Your task to perform on an android device: change text size in settings app Image 0: 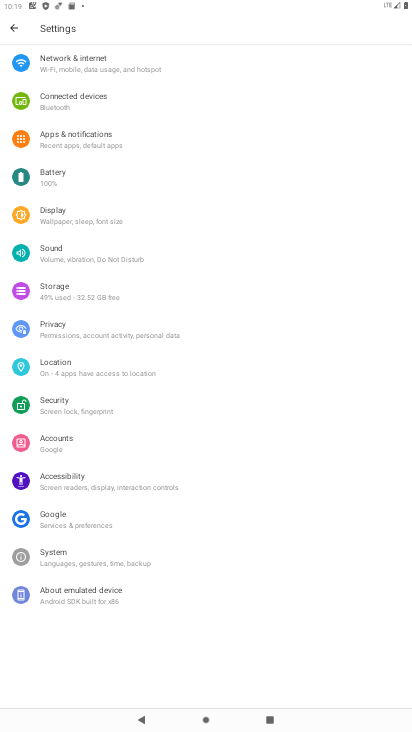
Step 0: click (66, 224)
Your task to perform on an android device: change text size in settings app Image 1: 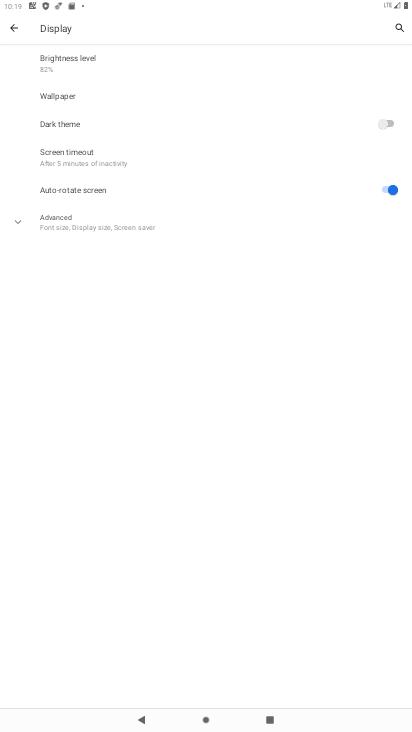
Step 1: click (86, 220)
Your task to perform on an android device: change text size in settings app Image 2: 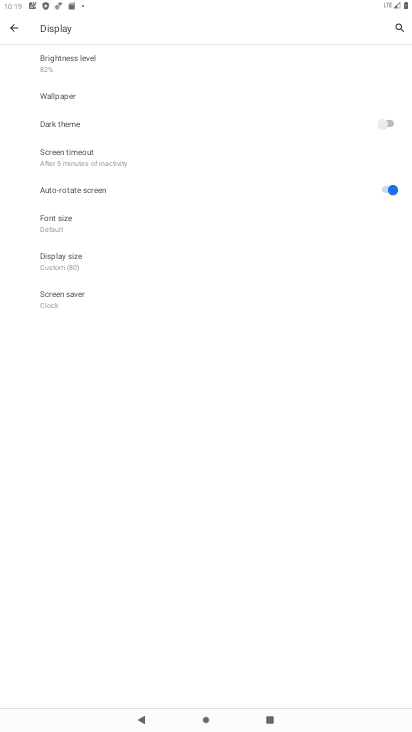
Step 2: click (85, 222)
Your task to perform on an android device: change text size in settings app Image 3: 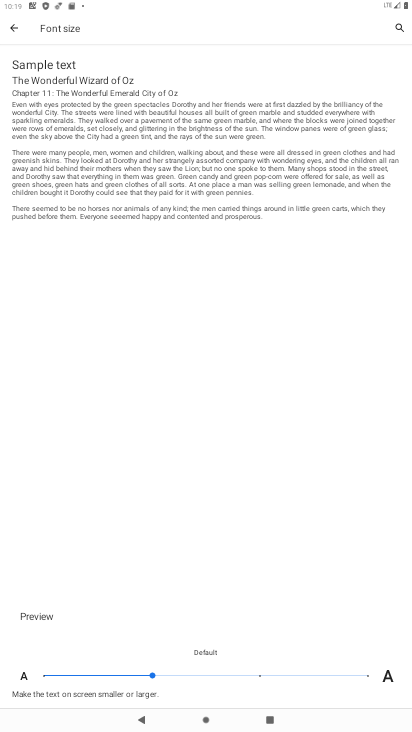
Step 3: click (360, 670)
Your task to perform on an android device: change text size in settings app Image 4: 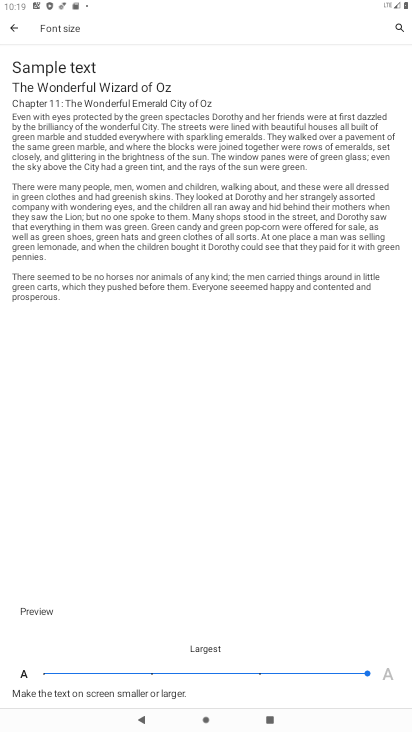
Step 4: task complete